Your task to perform on an android device: choose inbox layout in the gmail app Image 0: 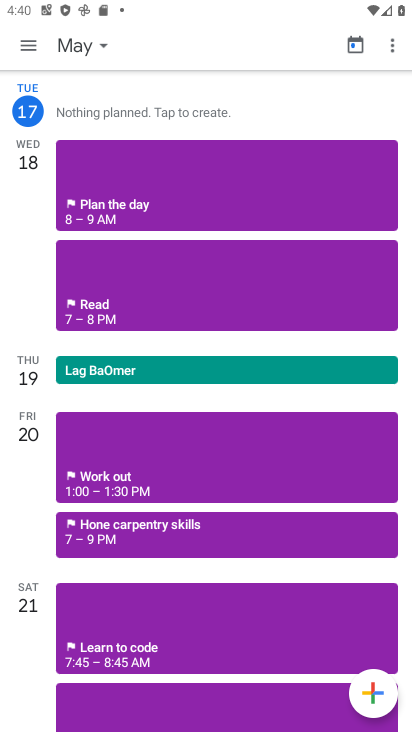
Step 0: press home button
Your task to perform on an android device: choose inbox layout in the gmail app Image 1: 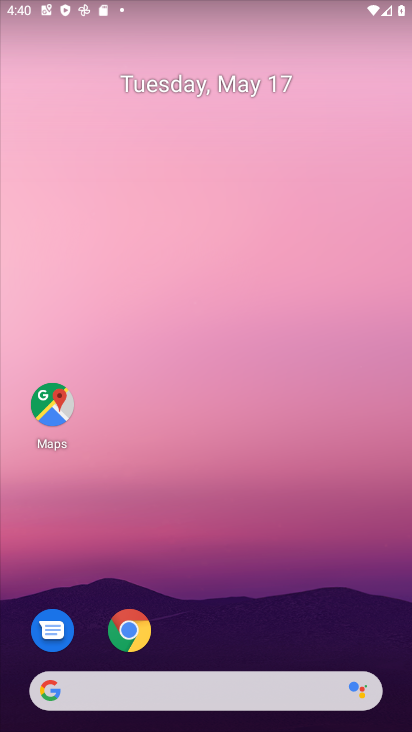
Step 1: drag from (200, 724) to (200, 147)
Your task to perform on an android device: choose inbox layout in the gmail app Image 2: 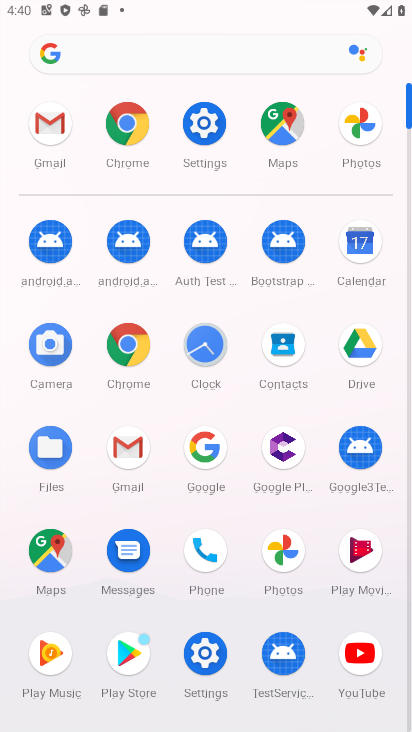
Step 2: click (129, 455)
Your task to perform on an android device: choose inbox layout in the gmail app Image 3: 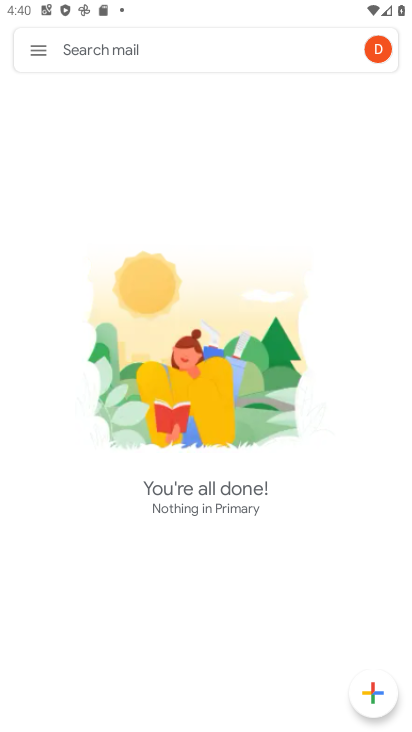
Step 3: click (35, 50)
Your task to perform on an android device: choose inbox layout in the gmail app Image 4: 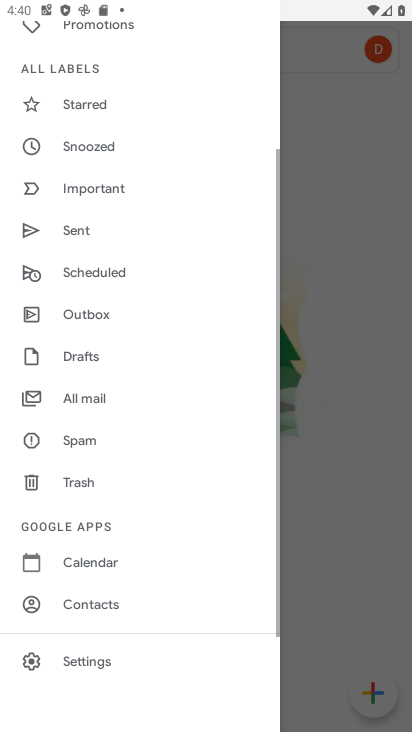
Step 4: click (75, 657)
Your task to perform on an android device: choose inbox layout in the gmail app Image 5: 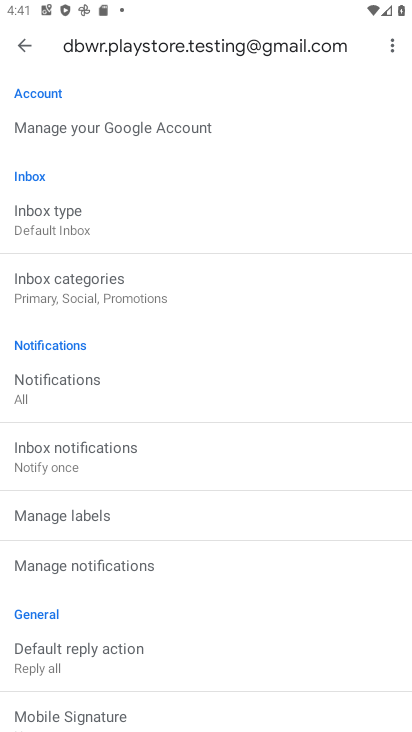
Step 5: click (59, 220)
Your task to perform on an android device: choose inbox layout in the gmail app Image 6: 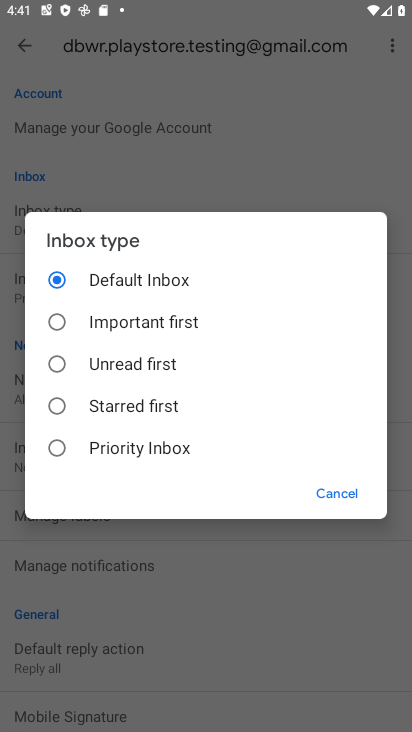
Step 6: click (53, 319)
Your task to perform on an android device: choose inbox layout in the gmail app Image 7: 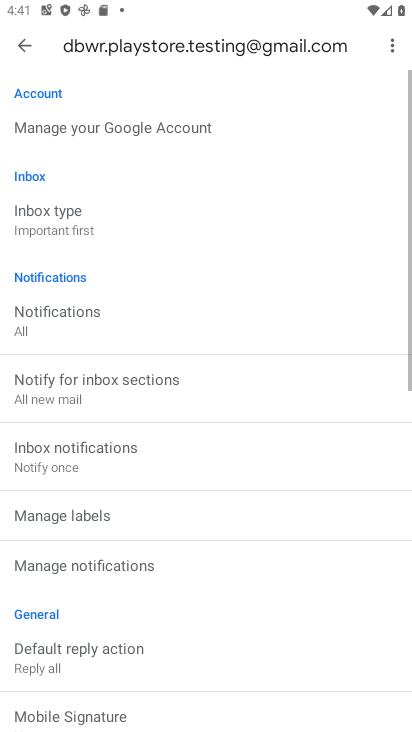
Step 7: task complete